Your task to perform on an android device: turn pop-ups on in chrome Image 0: 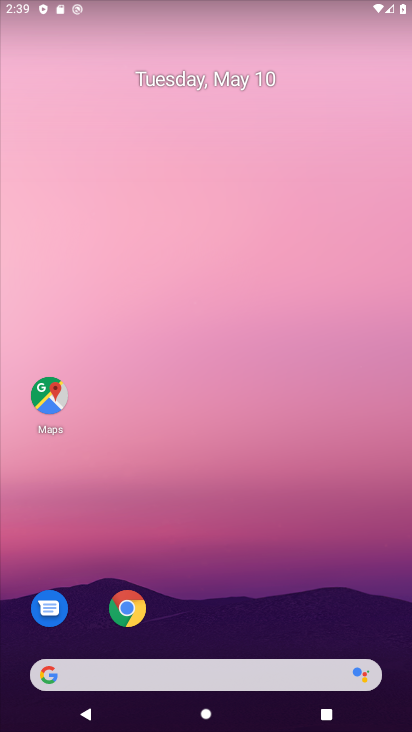
Step 0: click (128, 609)
Your task to perform on an android device: turn pop-ups on in chrome Image 1: 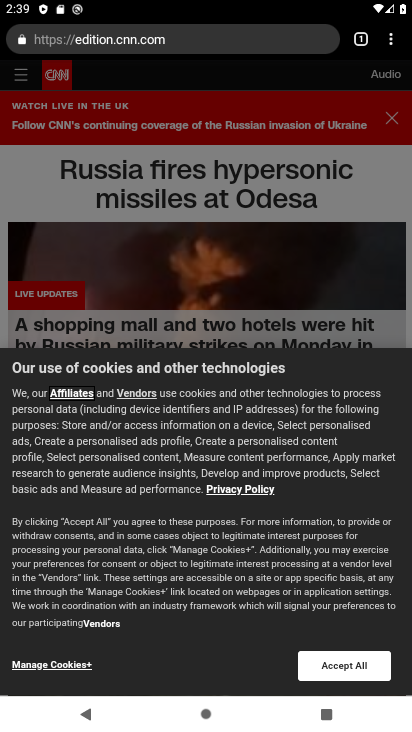
Step 1: click (392, 44)
Your task to perform on an android device: turn pop-ups on in chrome Image 2: 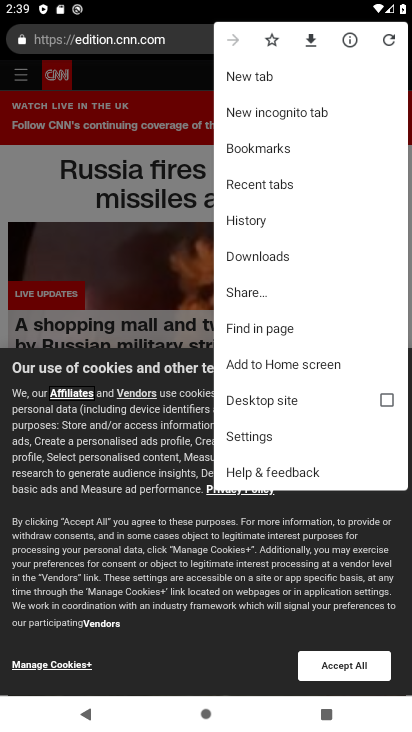
Step 2: click (262, 434)
Your task to perform on an android device: turn pop-ups on in chrome Image 3: 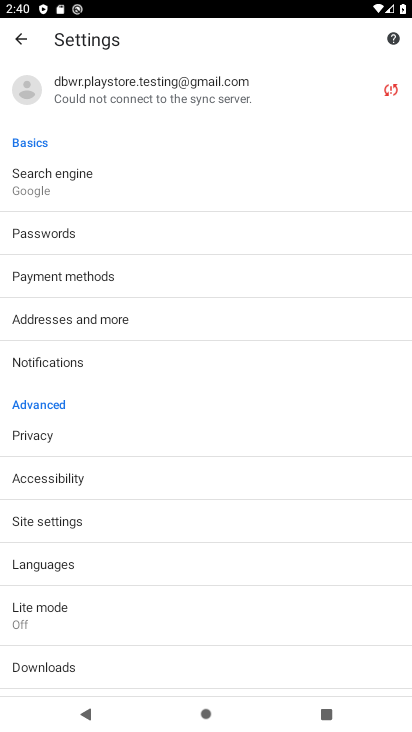
Step 3: click (46, 525)
Your task to perform on an android device: turn pop-ups on in chrome Image 4: 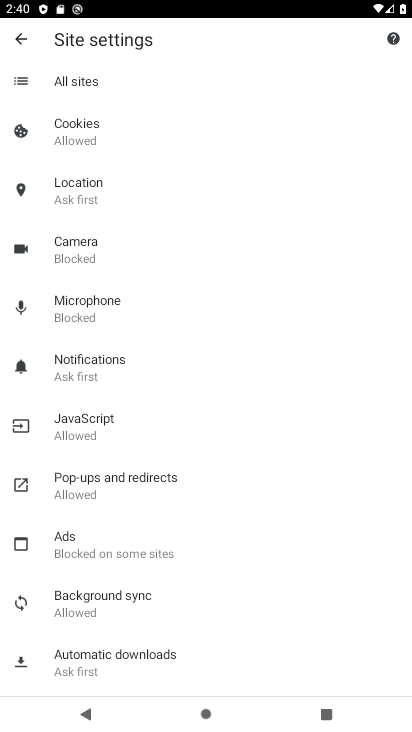
Step 4: click (87, 486)
Your task to perform on an android device: turn pop-ups on in chrome Image 5: 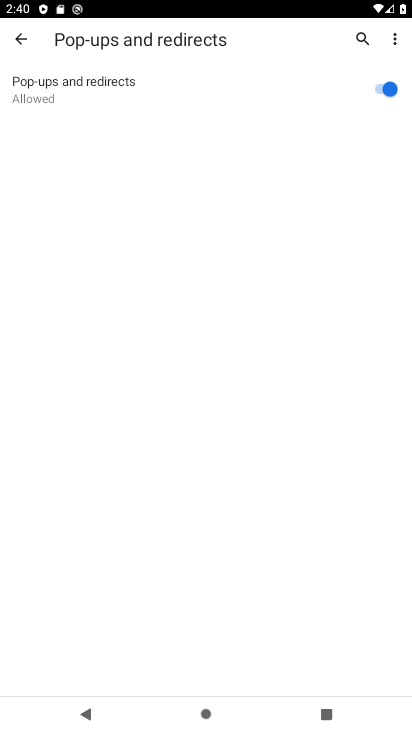
Step 5: task complete